Your task to perform on an android device: turn off picture-in-picture Image 0: 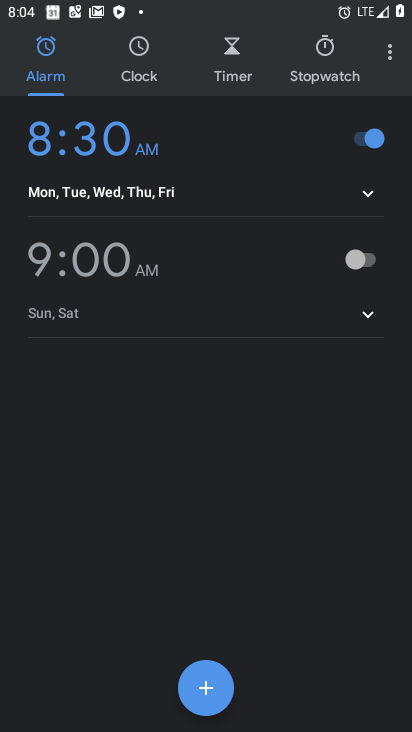
Step 0: press home button
Your task to perform on an android device: turn off picture-in-picture Image 1: 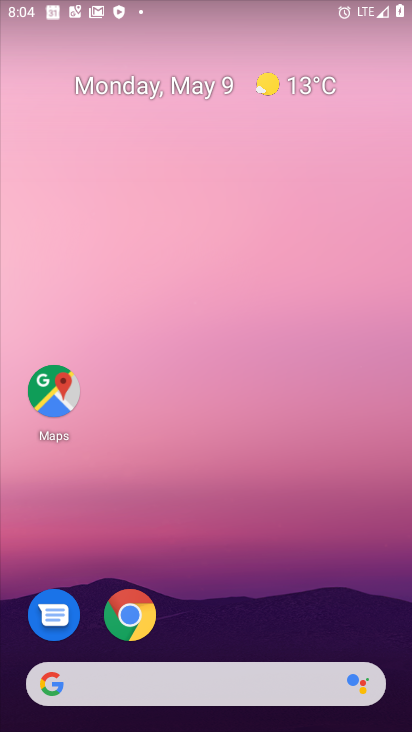
Step 1: drag from (139, 607) to (143, 507)
Your task to perform on an android device: turn off picture-in-picture Image 2: 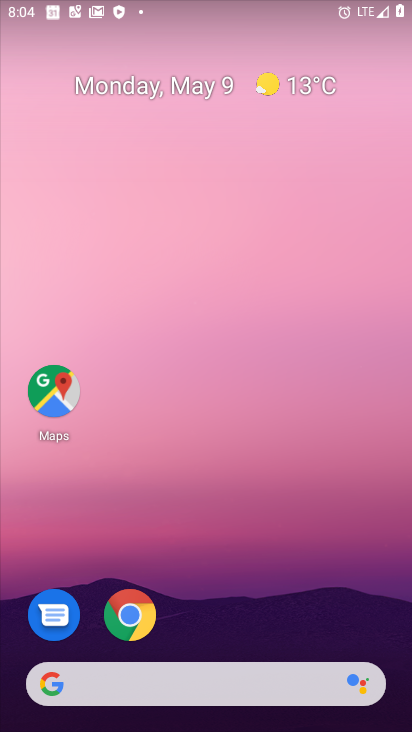
Step 2: click (122, 612)
Your task to perform on an android device: turn off picture-in-picture Image 3: 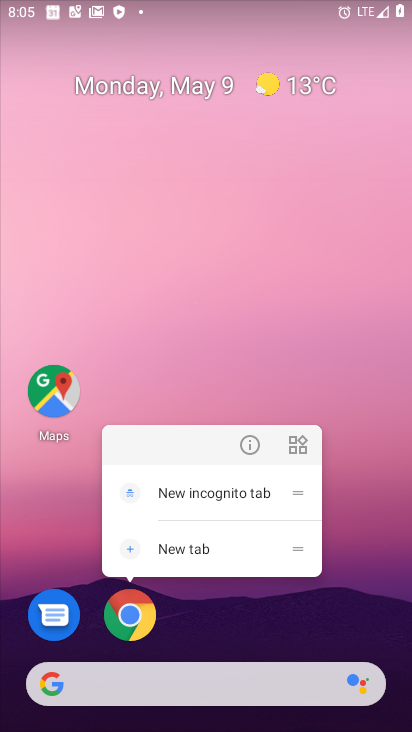
Step 3: click (247, 453)
Your task to perform on an android device: turn off picture-in-picture Image 4: 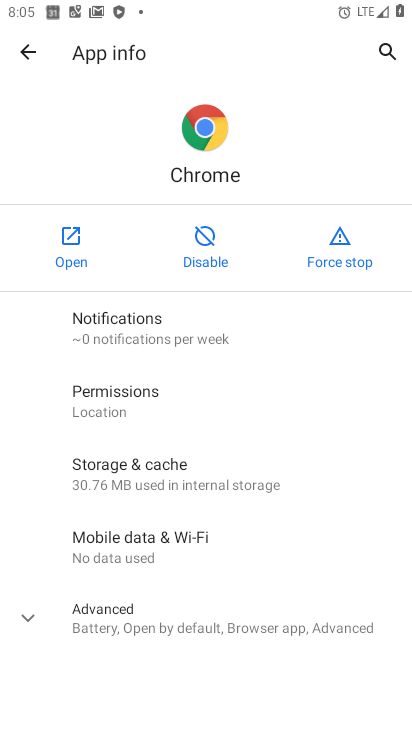
Step 4: click (264, 632)
Your task to perform on an android device: turn off picture-in-picture Image 5: 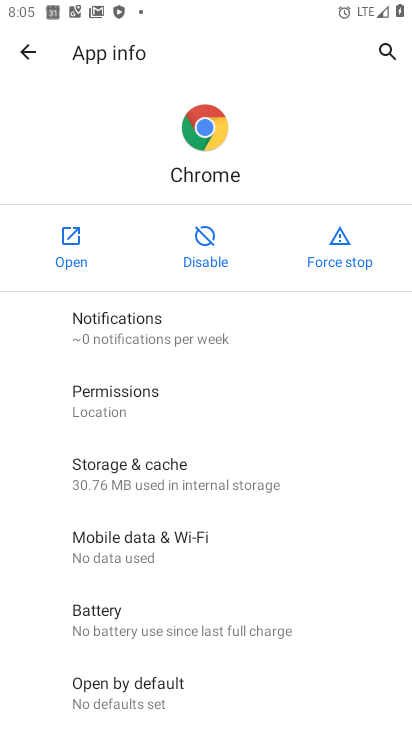
Step 5: click (264, 632)
Your task to perform on an android device: turn off picture-in-picture Image 6: 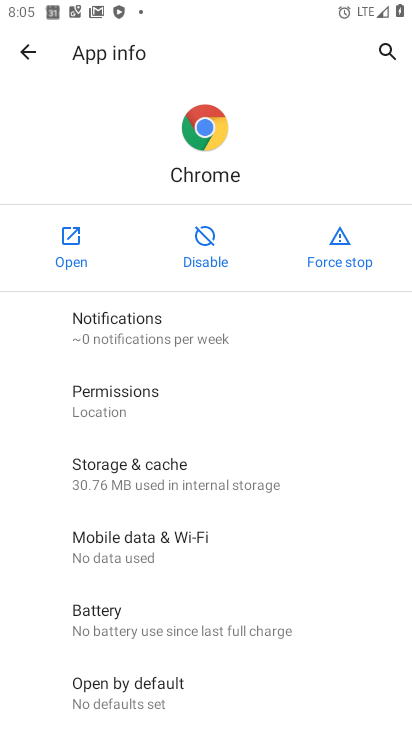
Step 6: drag from (264, 632) to (254, 213)
Your task to perform on an android device: turn off picture-in-picture Image 7: 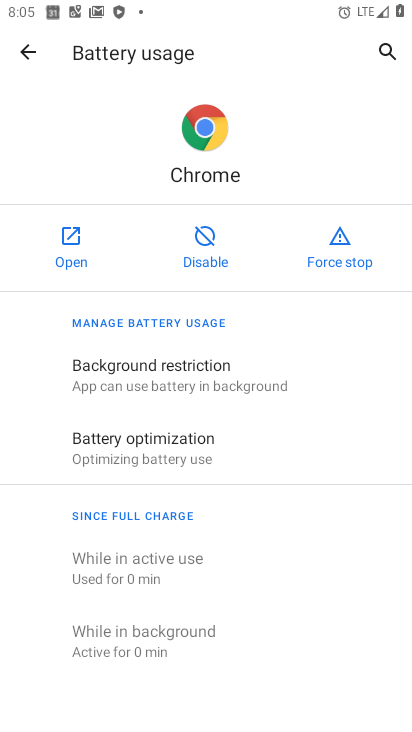
Step 7: drag from (127, 552) to (175, 42)
Your task to perform on an android device: turn off picture-in-picture Image 8: 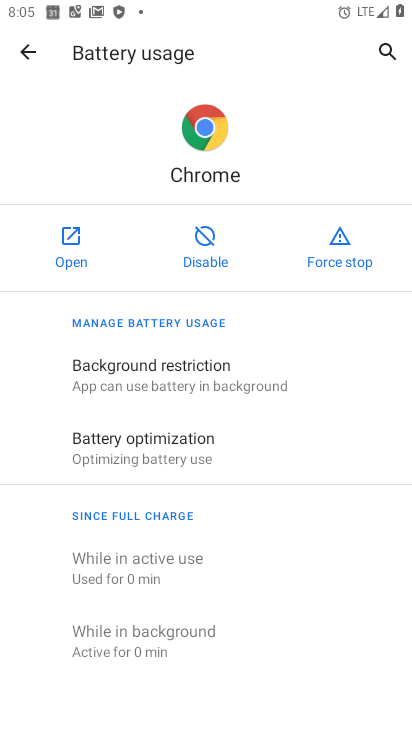
Step 8: click (28, 48)
Your task to perform on an android device: turn off picture-in-picture Image 9: 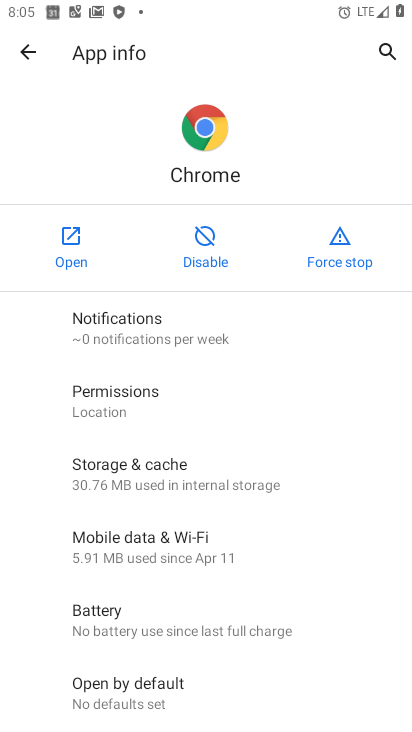
Step 9: drag from (143, 695) to (258, 125)
Your task to perform on an android device: turn off picture-in-picture Image 10: 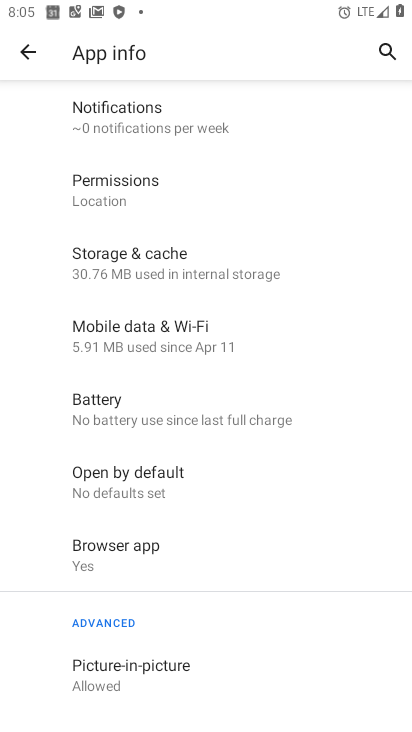
Step 10: click (208, 690)
Your task to perform on an android device: turn off picture-in-picture Image 11: 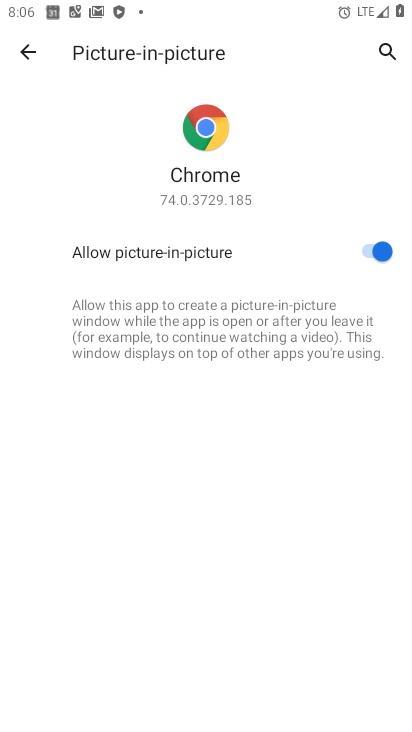
Step 11: click (372, 259)
Your task to perform on an android device: turn off picture-in-picture Image 12: 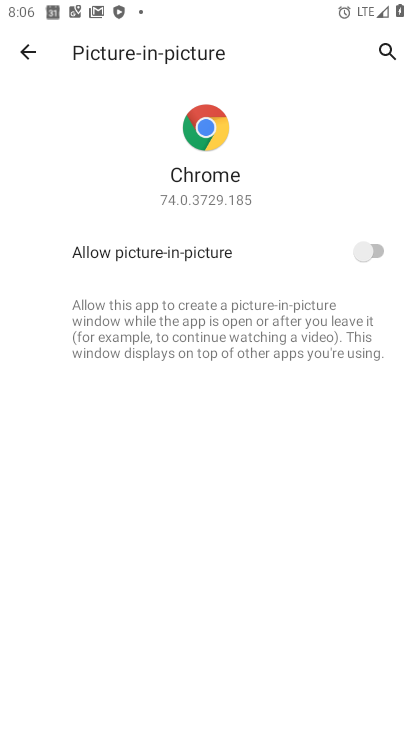
Step 12: task complete